Your task to perform on an android device: show emergency info Image 0: 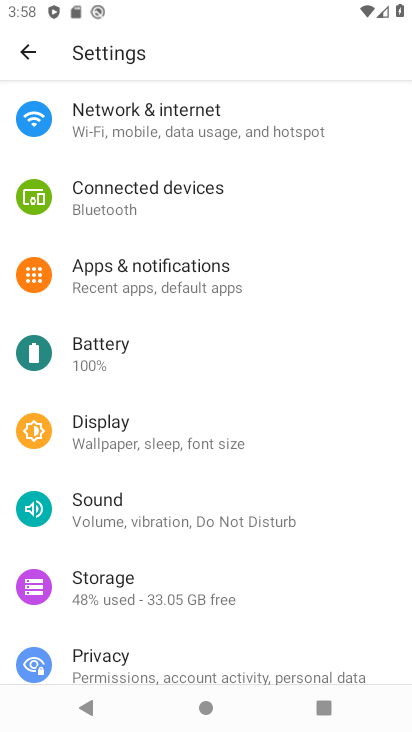
Step 0: drag from (168, 620) to (126, 217)
Your task to perform on an android device: show emergency info Image 1: 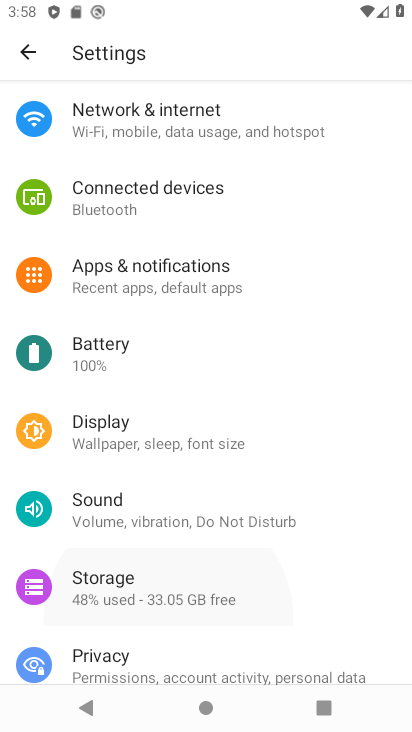
Step 1: drag from (154, 115) to (123, 13)
Your task to perform on an android device: show emergency info Image 2: 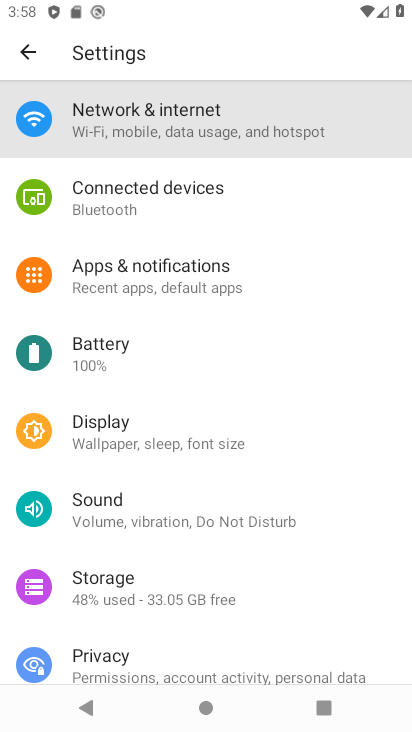
Step 2: drag from (188, 181) to (190, 8)
Your task to perform on an android device: show emergency info Image 3: 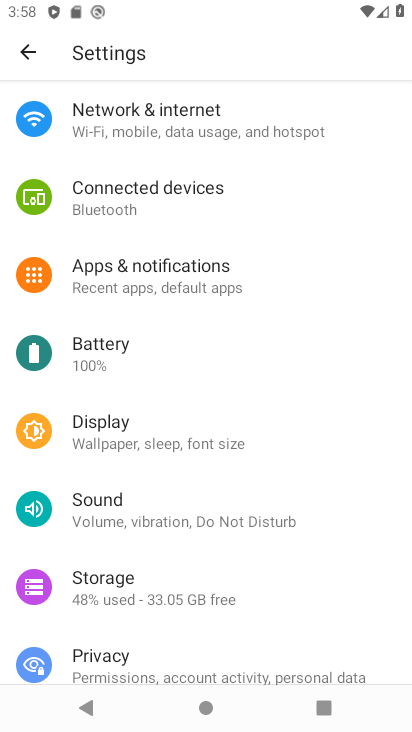
Step 3: drag from (154, 498) to (116, 224)
Your task to perform on an android device: show emergency info Image 4: 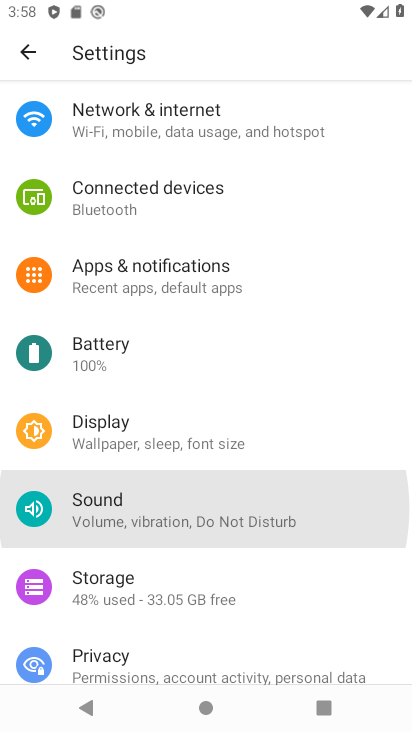
Step 4: drag from (161, 504) to (111, 116)
Your task to perform on an android device: show emergency info Image 5: 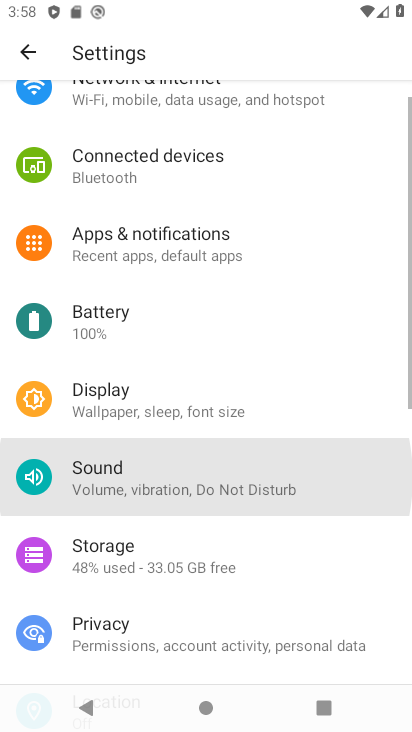
Step 5: drag from (161, 319) to (128, 90)
Your task to perform on an android device: show emergency info Image 6: 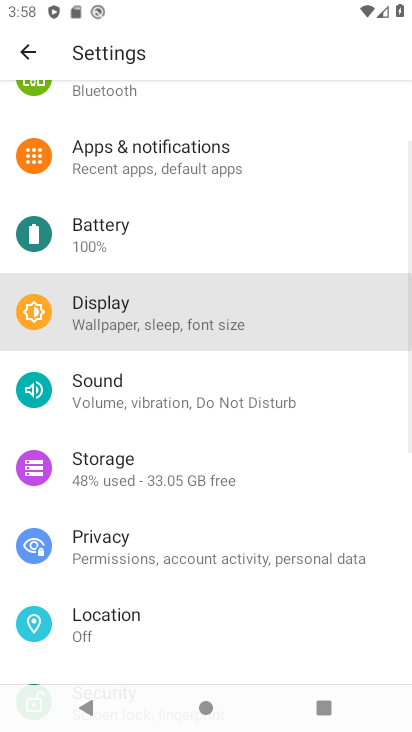
Step 6: drag from (157, 408) to (104, 15)
Your task to perform on an android device: show emergency info Image 7: 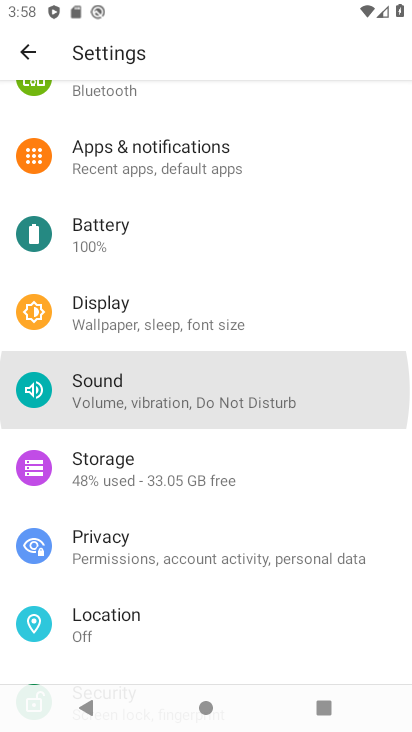
Step 7: drag from (104, 244) to (104, 83)
Your task to perform on an android device: show emergency info Image 8: 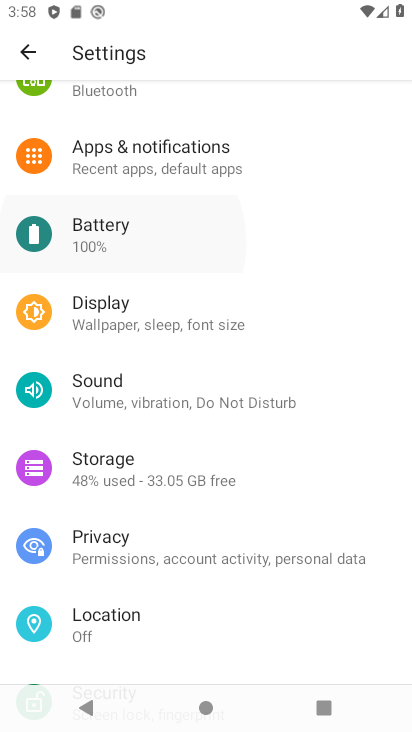
Step 8: drag from (102, 274) to (145, 52)
Your task to perform on an android device: show emergency info Image 9: 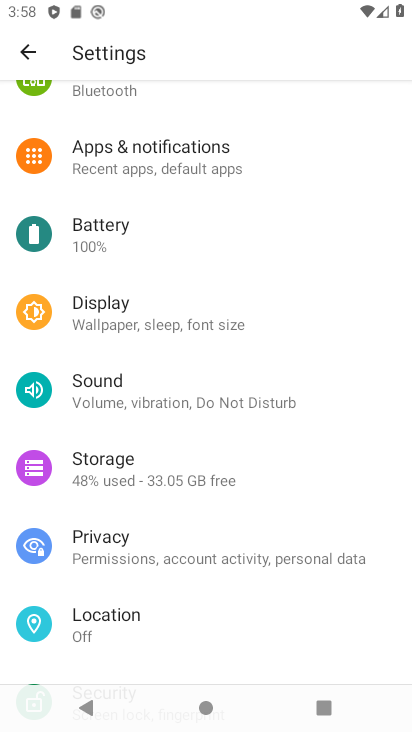
Step 9: drag from (279, 506) to (299, 251)
Your task to perform on an android device: show emergency info Image 10: 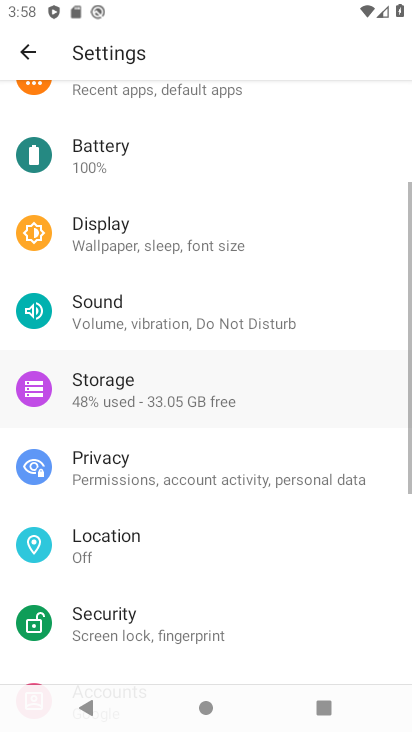
Step 10: drag from (296, 215) to (310, 121)
Your task to perform on an android device: show emergency info Image 11: 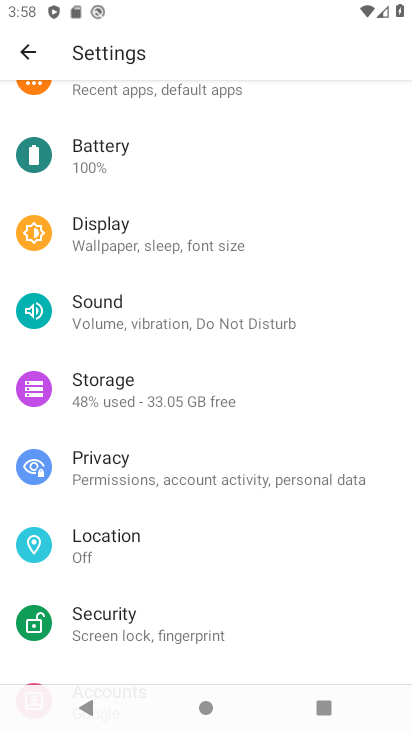
Step 11: drag from (239, 215) to (237, 142)
Your task to perform on an android device: show emergency info Image 12: 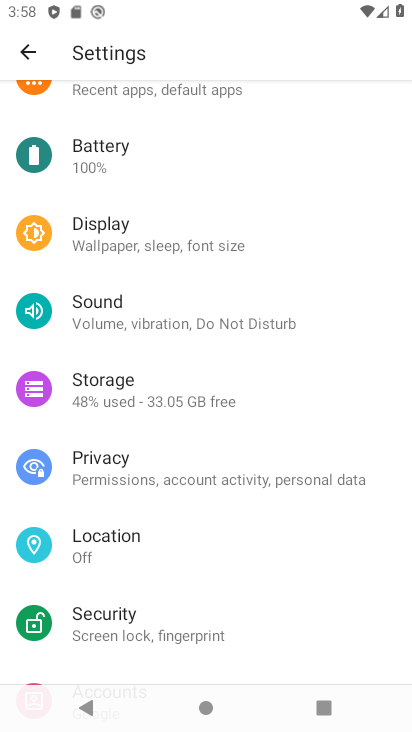
Step 12: drag from (195, 221) to (183, 103)
Your task to perform on an android device: show emergency info Image 13: 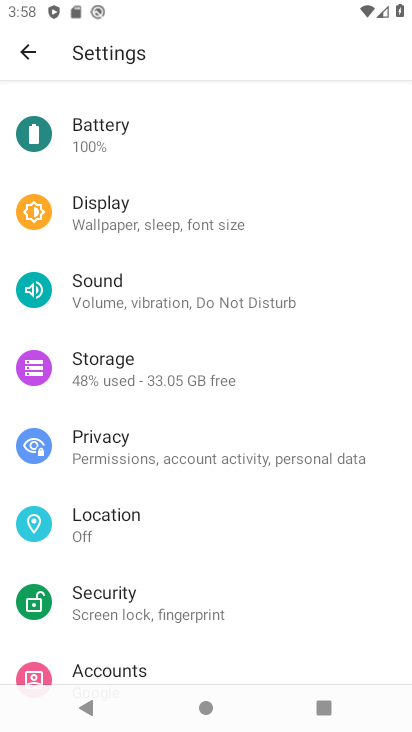
Step 13: drag from (117, 419) to (194, 12)
Your task to perform on an android device: show emergency info Image 14: 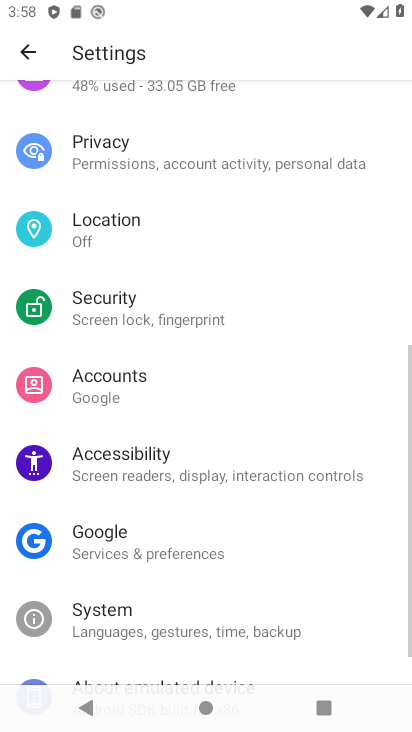
Step 14: drag from (219, 606) to (182, 221)
Your task to perform on an android device: show emergency info Image 15: 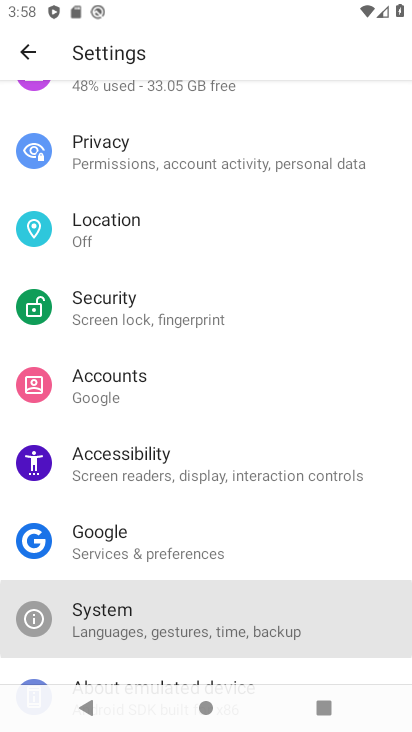
Step 15: drag from (178, 472) to (119, 48)
Your task to perform on an android device: show emergency info Image 16: 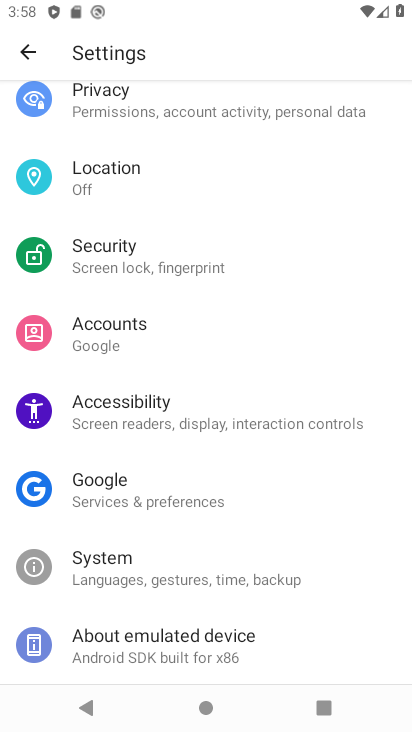
Step 16: click (153, 646)
Your task to perform on an android device: show emergency info Image 17: 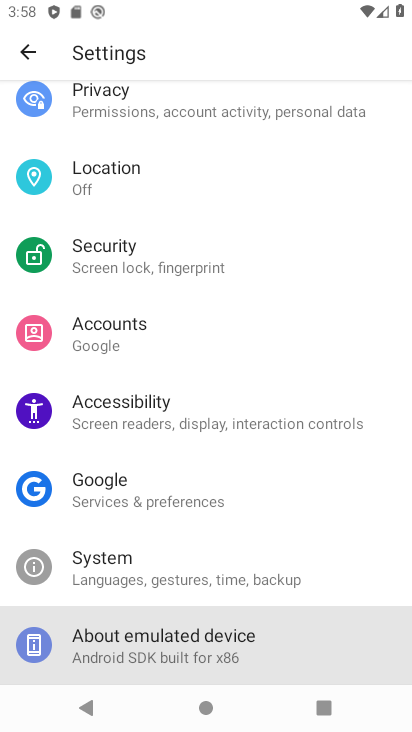
Step 17: click (144, 658)
Your task to perform on an android device: show emergency info Image 18: 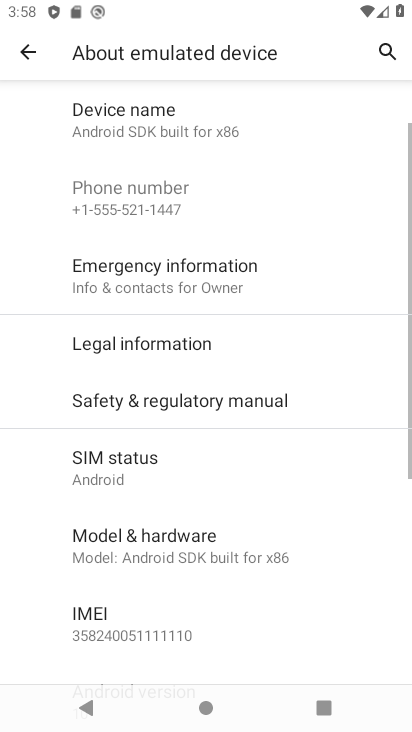
Step 18: click (133, 643)
Your task to perform on an android device: show emergency info Image 19: 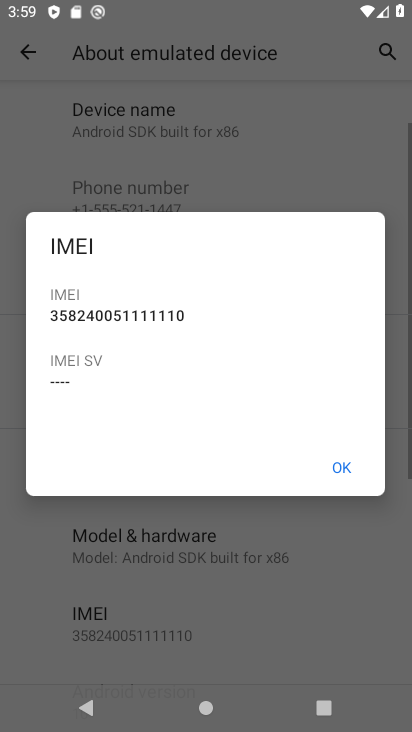
Step 19: click (346, 469)
Your task to perform on an android device: show emergency info Image 20: 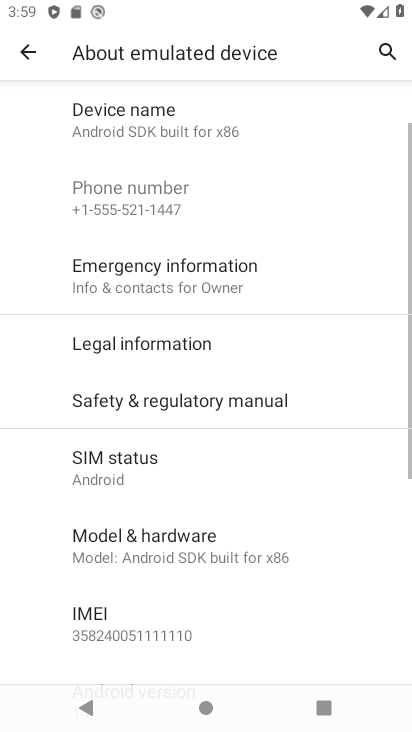
Step 20: task complete